Your task to perform on an android device: open app "Adobe Acrobat Reader" Image 0: 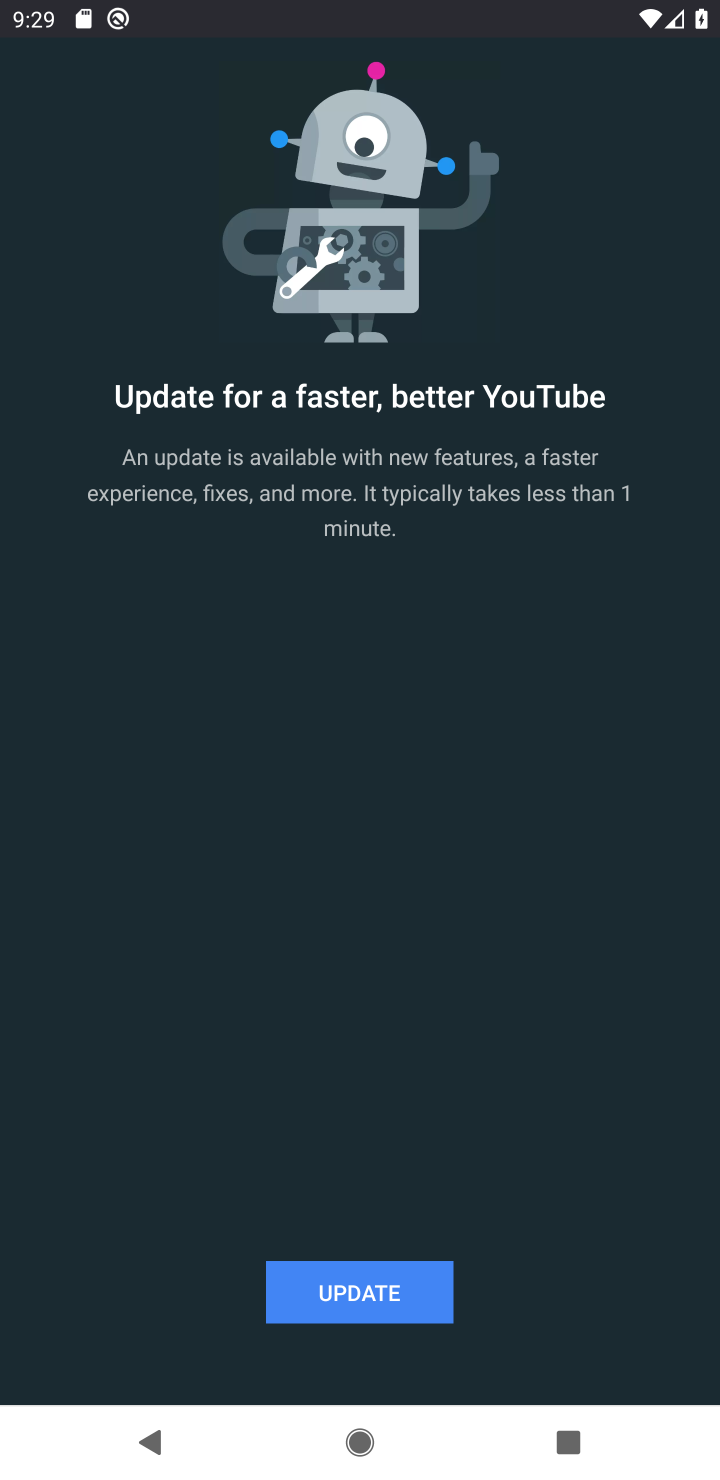
Step 0: press home button
Your task to perform on an android device: open app "Adobe Acrobat Reader" Image 1: 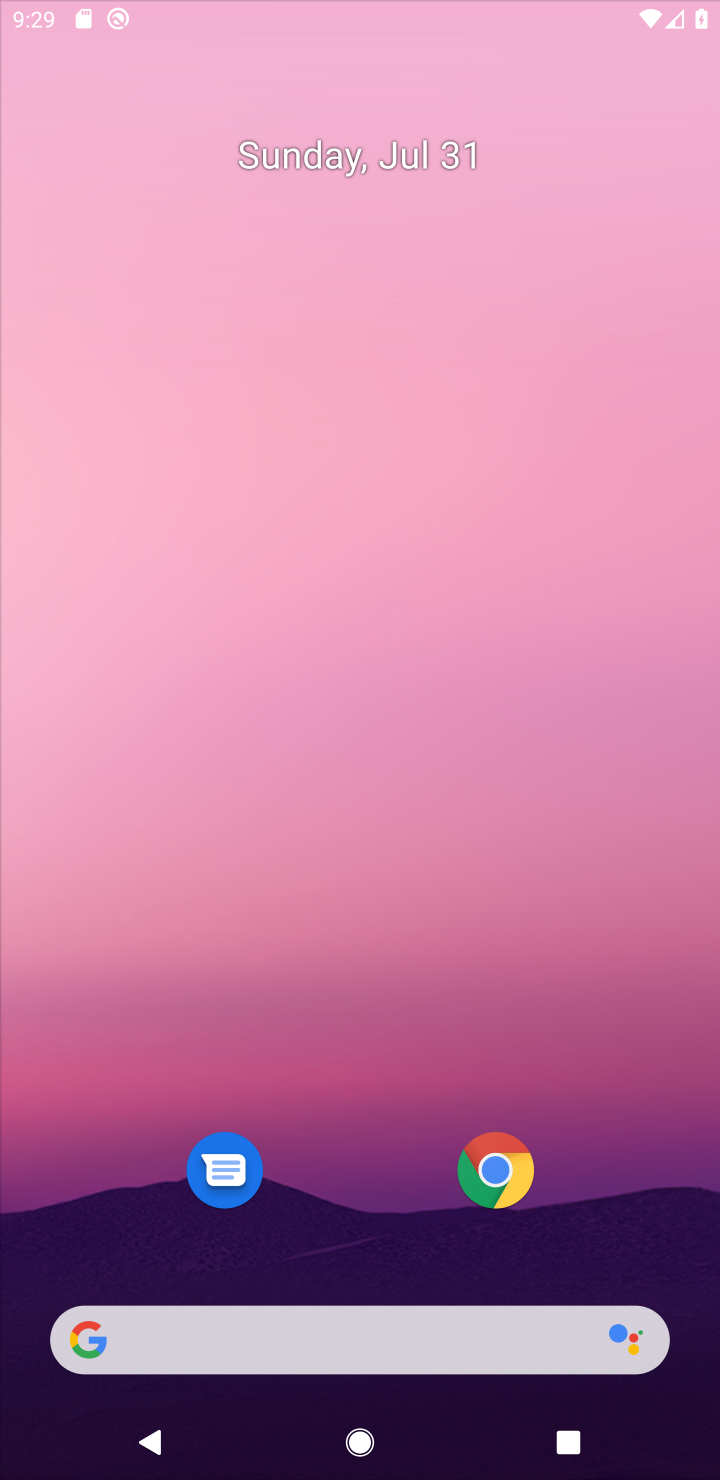
Step 1: drag from (684, 1235) to (353, 159)
Your task to perform on an android device: open app "Adobe Acrobat Reader" Image 2: 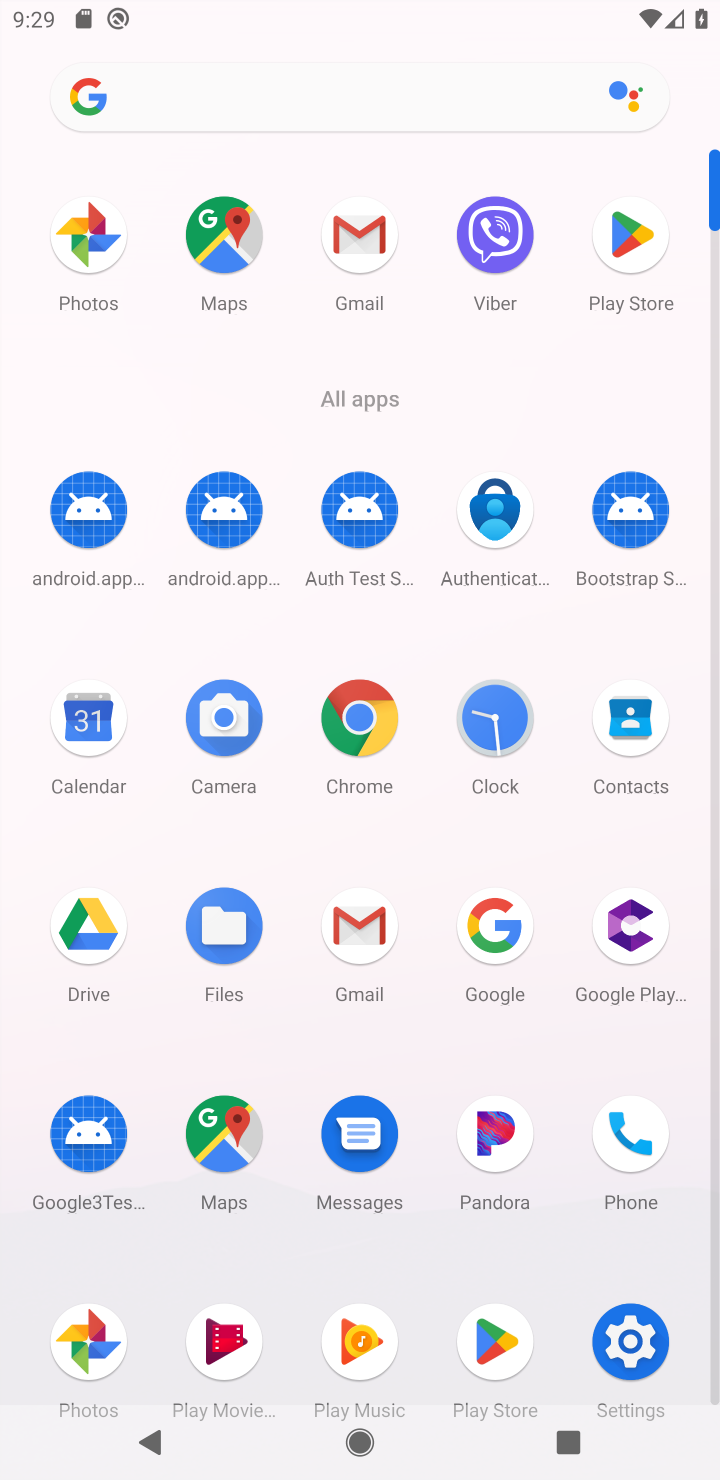
Step 2: click (613, 245)
Your task to perform on an android device: open app "Adobe Acrobat Reader" Image 3: 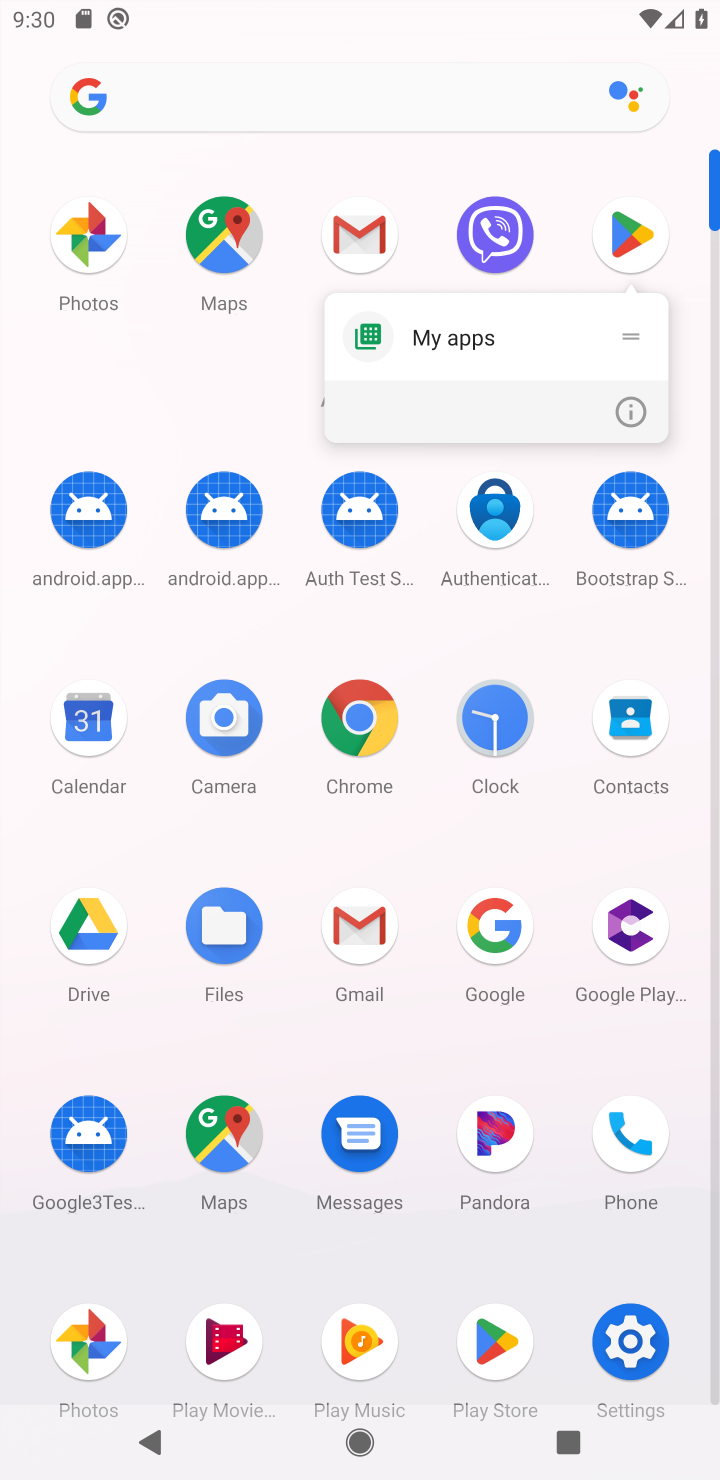
Step 3: click (613, 245)
Your task to perform on an android device: open app "Adobe Acrobat Reader" Image 4: 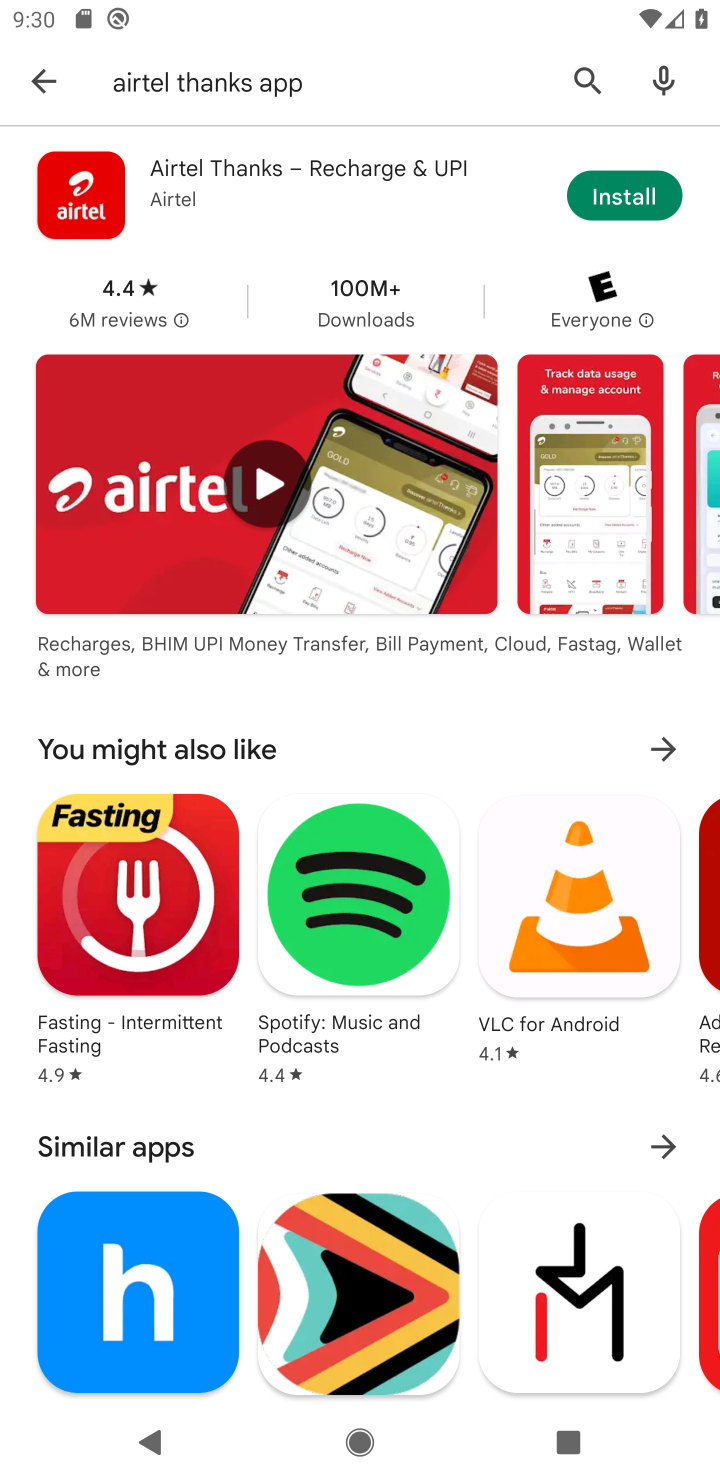
Step 4: press back button
Your task to perform on an android device: open app "Adobe Acrobat Reader" Image 5: 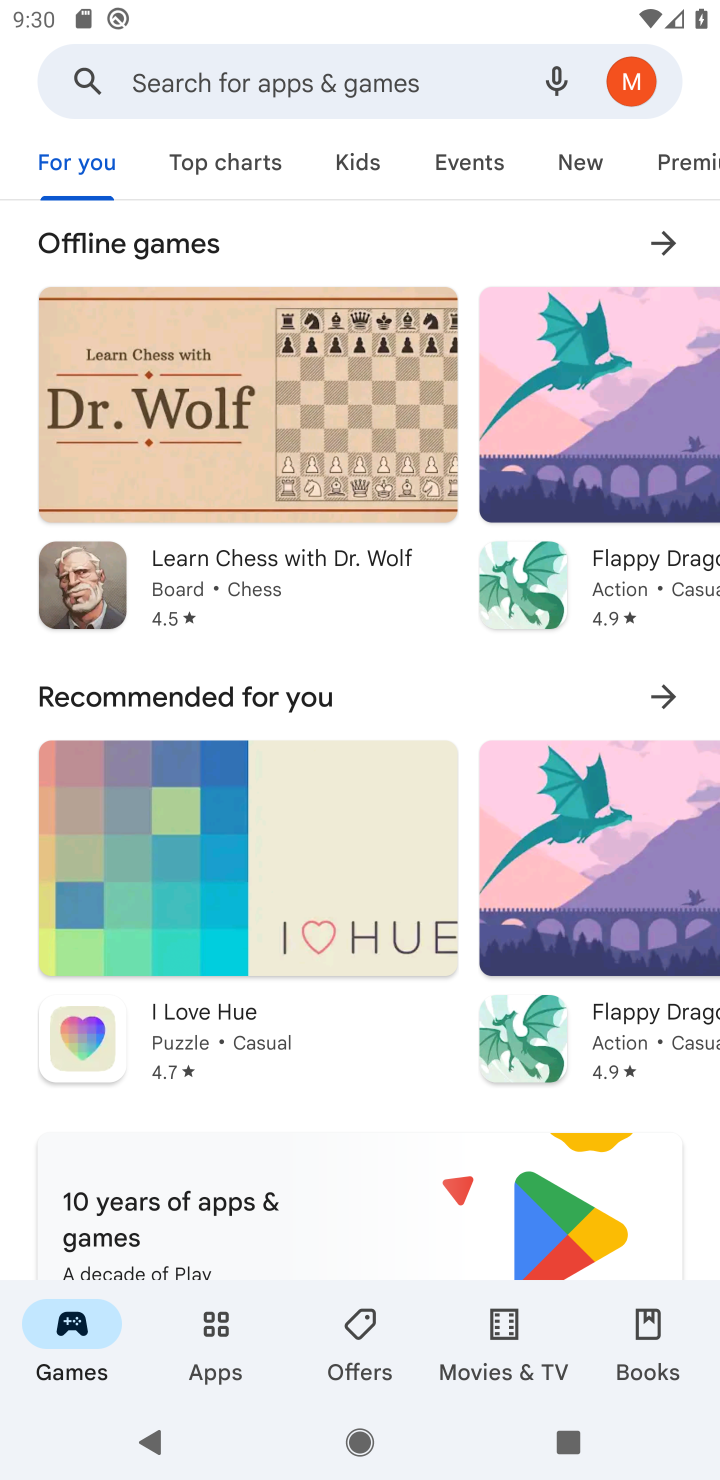
Step 5: click (207, 71)
Your task to perform on an android device: open app "Adobe Acrobat Reader" Image 6: 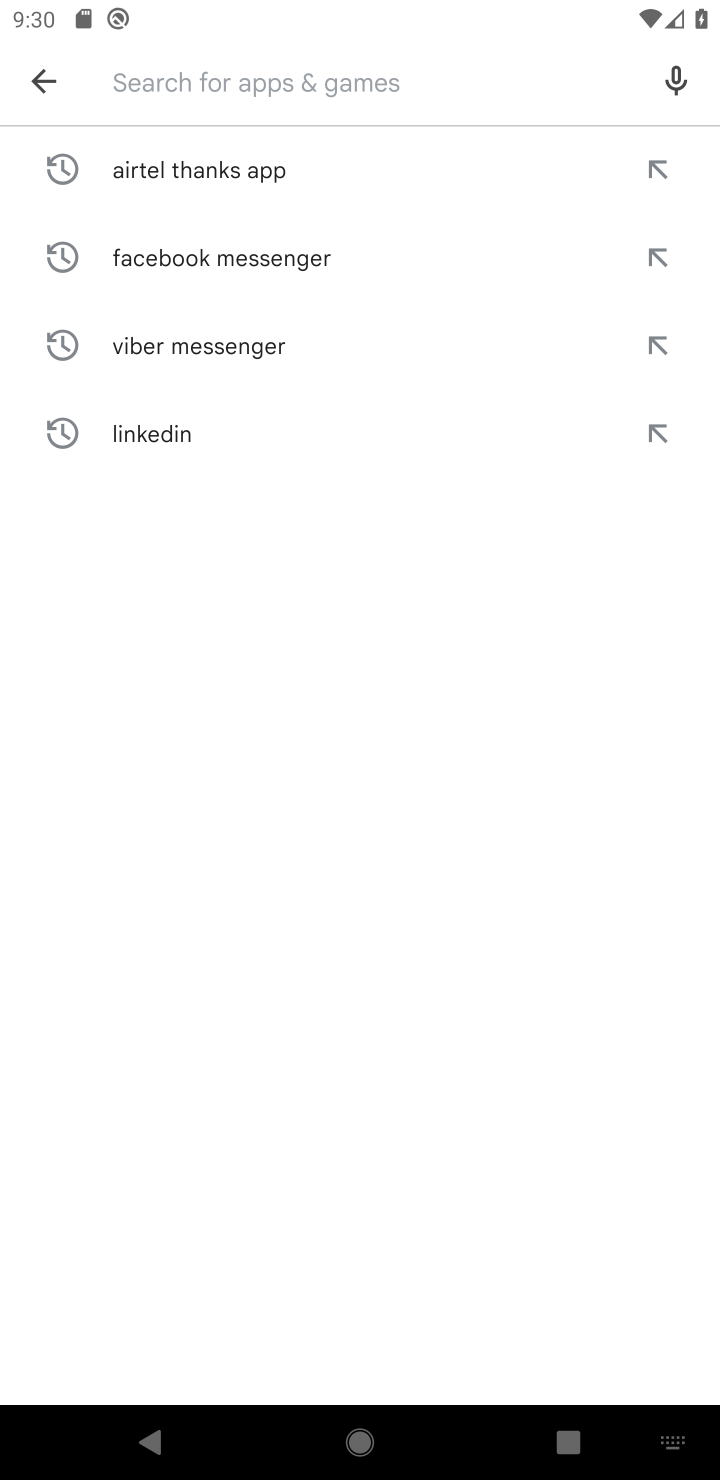
Step 6: type "Adobe Acrobat Reader"
Your task to perform on an android device: open app "Adobe Acrobat Reader" Image 7: 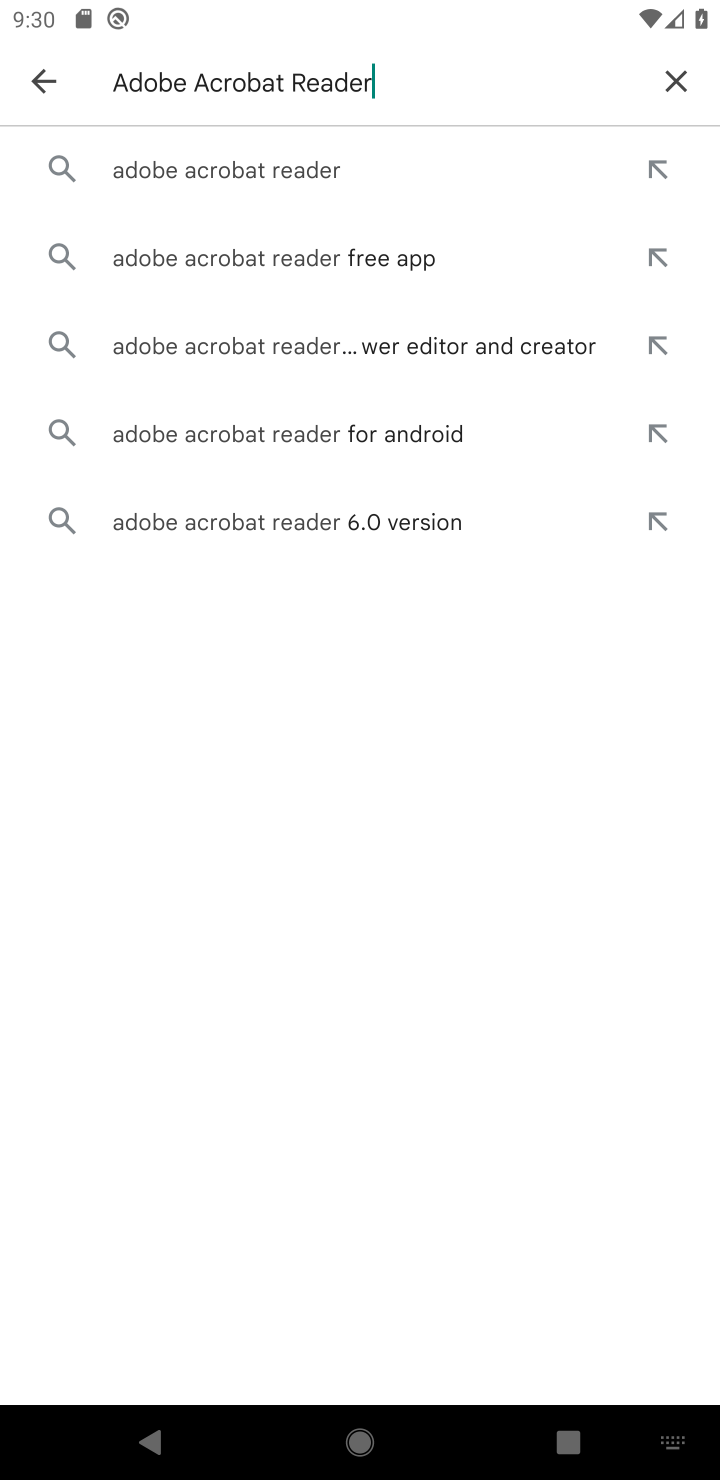
Step 7: click (250, 177)
Your task to perform on an android device: open app "Adobe Acrobat Reader" Image 8: 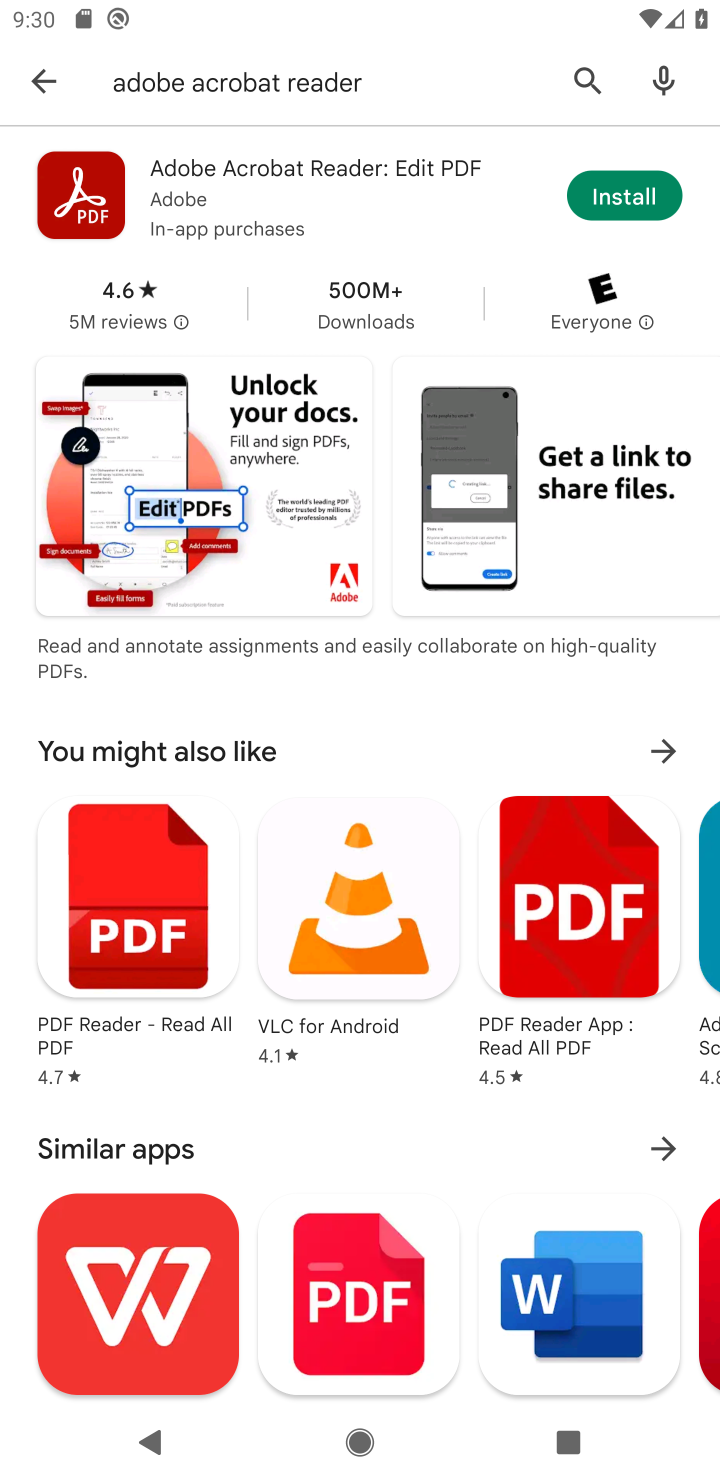
Step 8: task complete